Your task to perform on an android device: check google app version Image 0: 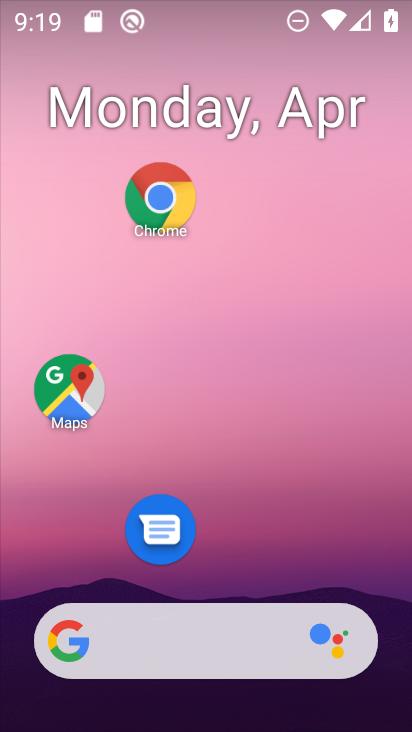
Step 0: drag from (233, 546) to (302, 39)
Your task to perform on an android device: check google app version Image 1: 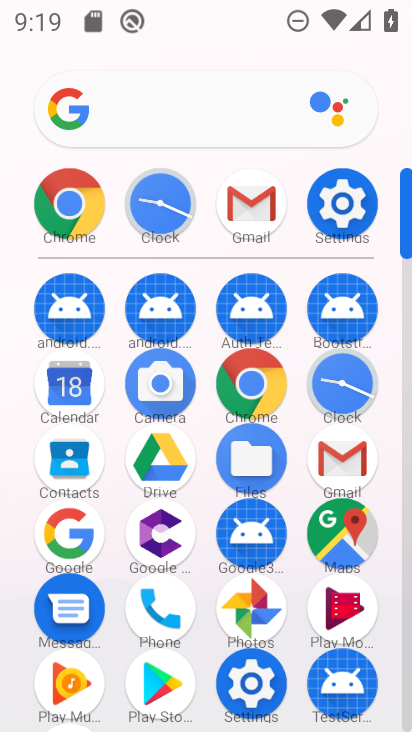
Step 1: click (72, 541)
Your task to perform on an android device: check google app version Image 2: 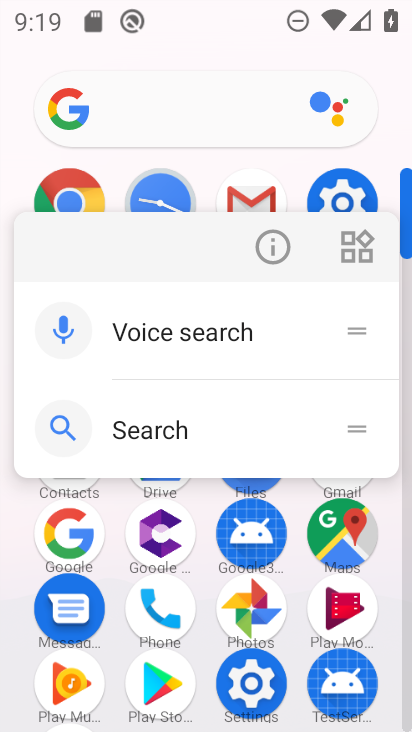
Step 2: click (280, 245)
Your task to perform on an android device: check google app version Image 3: 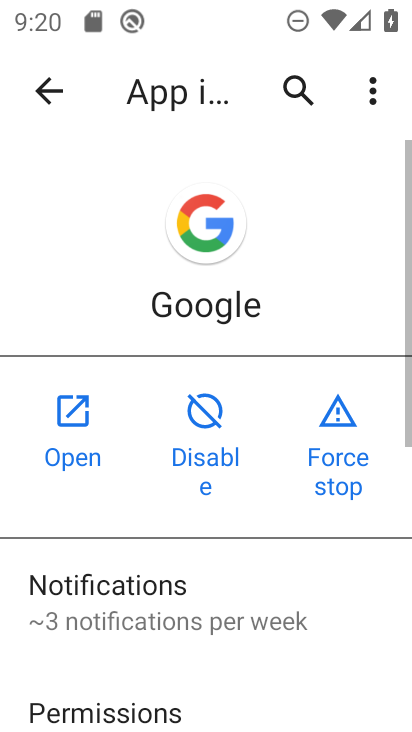
Step 3: drag from (180, 661) to (267, 87)
Your task to perform on an android device: check google app version Image 4: 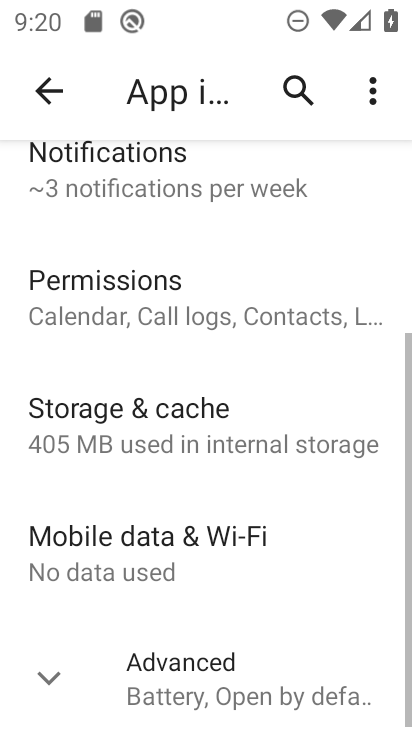
Step 4: drag from (154, 617) to (283, 96)
Your task to perform on an android device: check google app version Image 5: 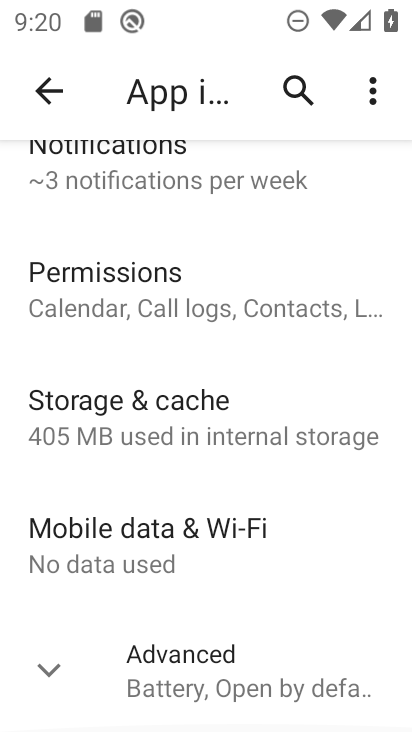
Step 5: click (156, 662)
Your task to perform on an android device: check google app version Image 6: 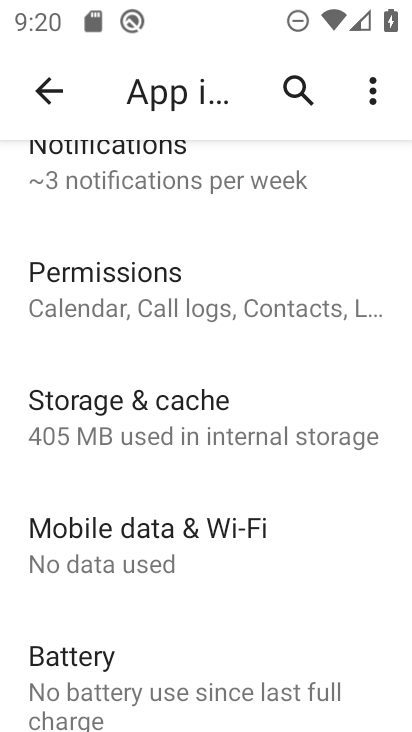
Step 6: task complete